Your task to perform on an android device: open sync settings in chrome Image 0: 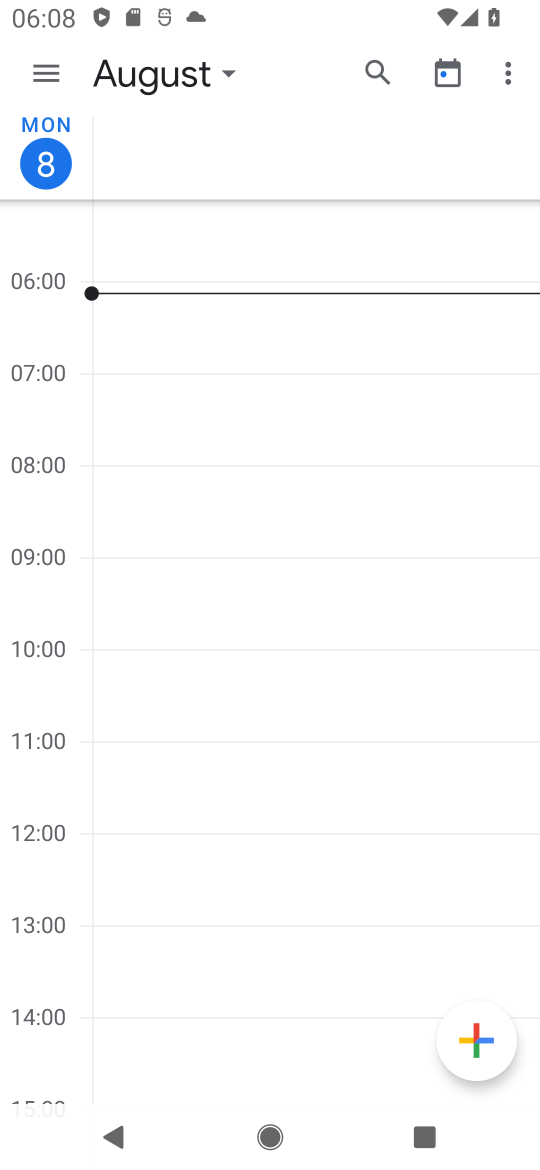
Step 0: press home button
Your task to perform on an android device: open sync settings in chrome Image 1: 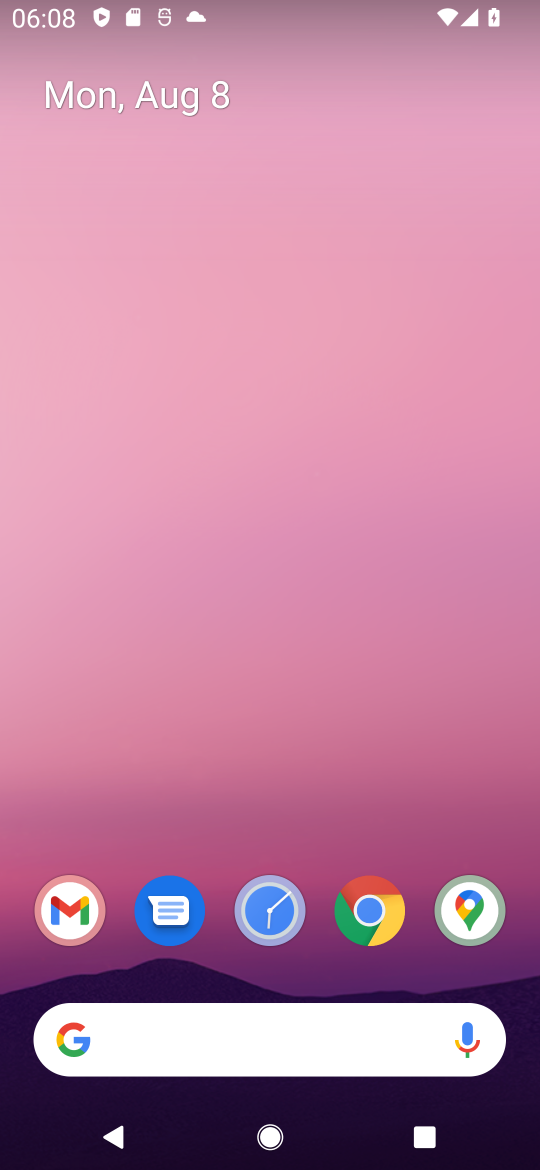
Step 1: click (367, 912)
Your task to perform on an android device: open sync settings in chrome Image 2: 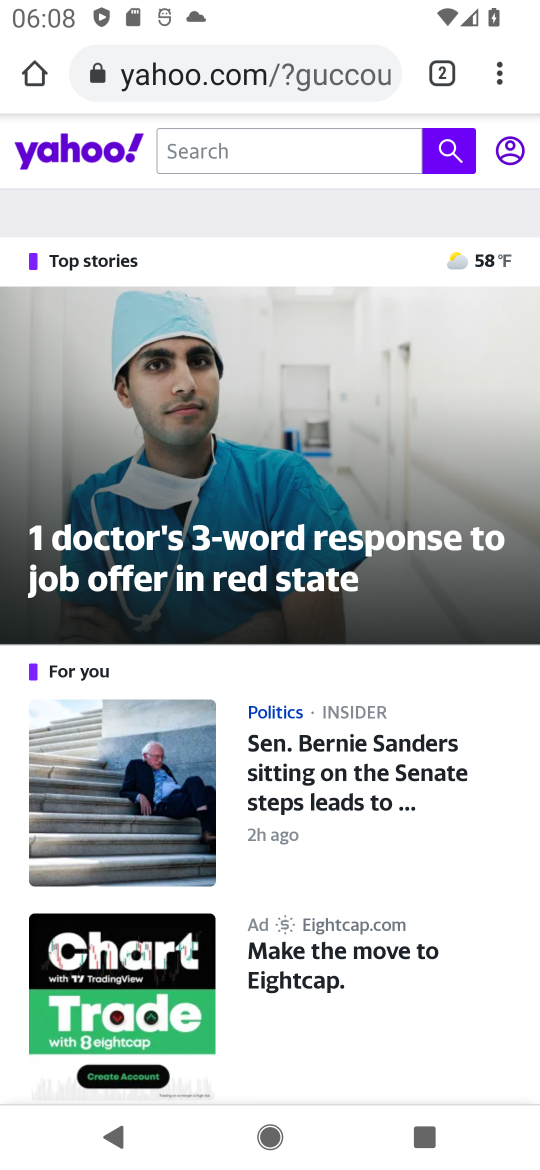
Step 2: click (498, 75)
Your task to perform on an android device: open sync settings in chrome Image 3: 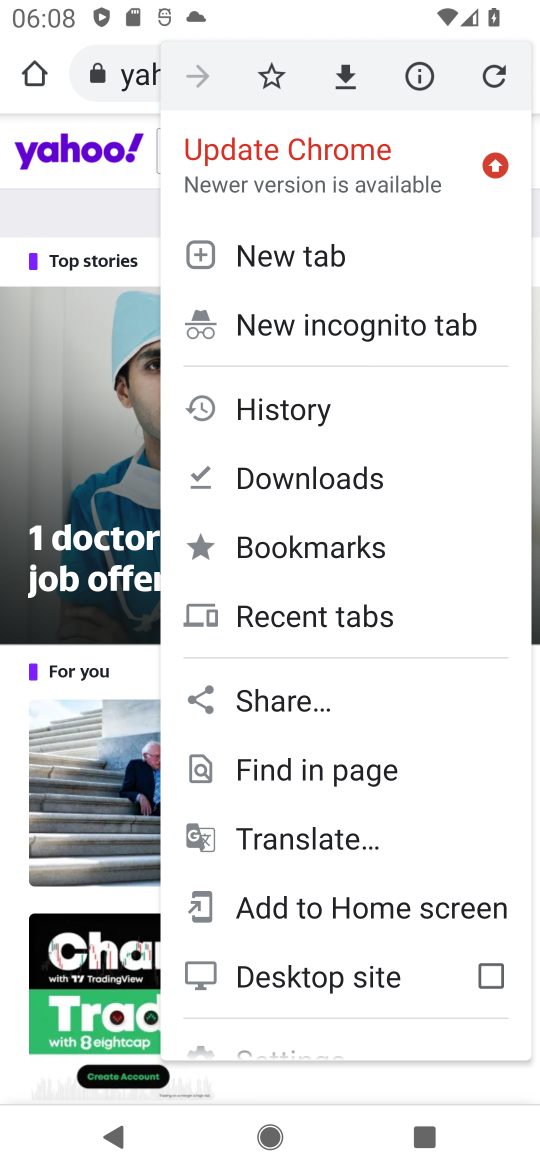
Step 3: drag from (284, 746) to (365, 597)
Your task to perform on an android device: open sync settings in chrome Image 4: 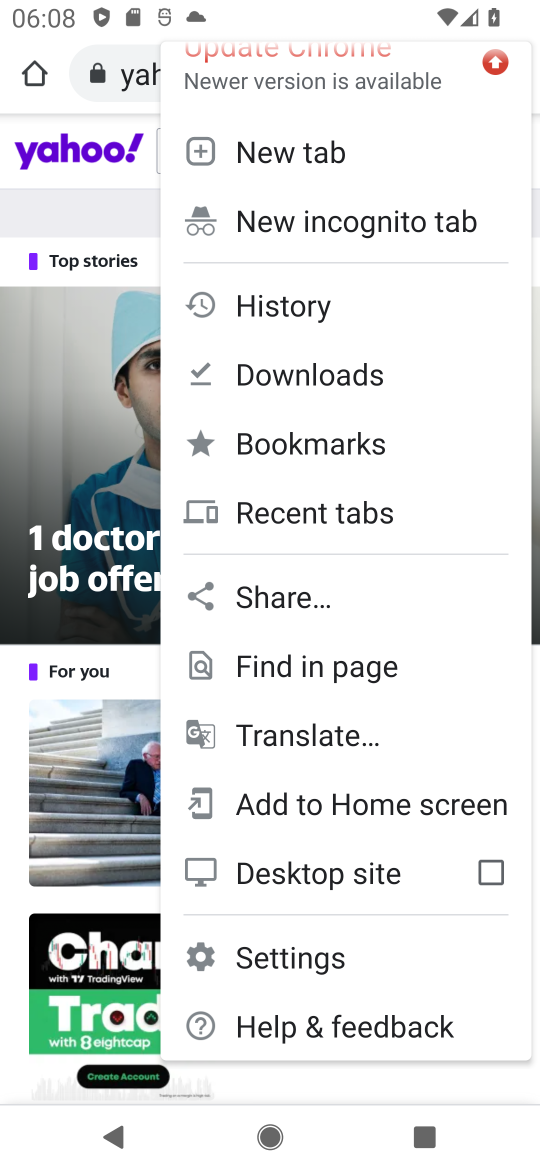
Step 4: click (315, 953)
Your task to perform on an android device: open sync settings in chrome Image 5: 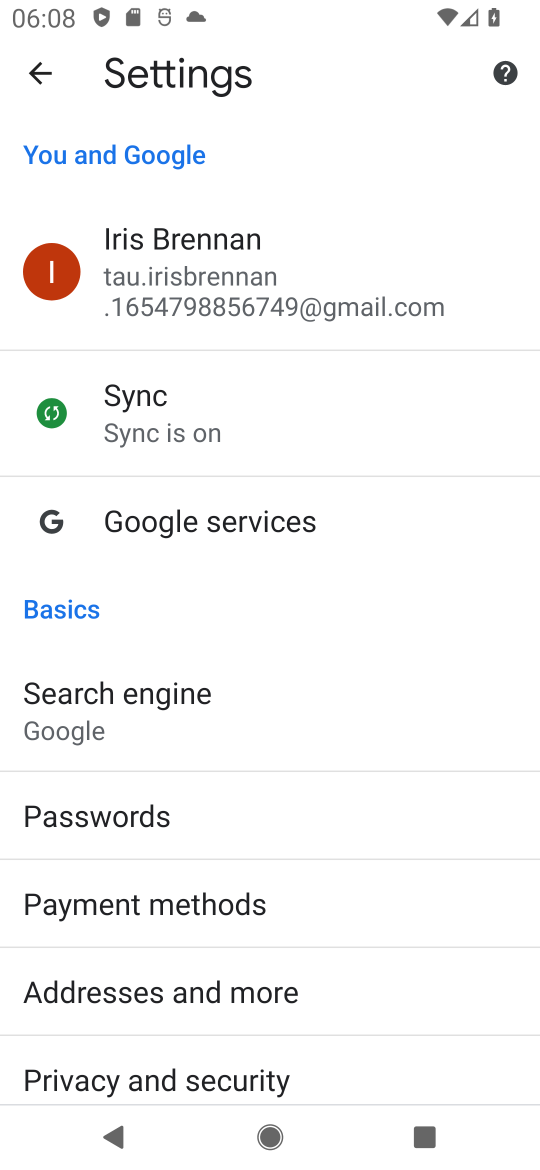
Step 5: click (168, 432)
Your task to perform on an android device: open sync settings in chrome Image 6: 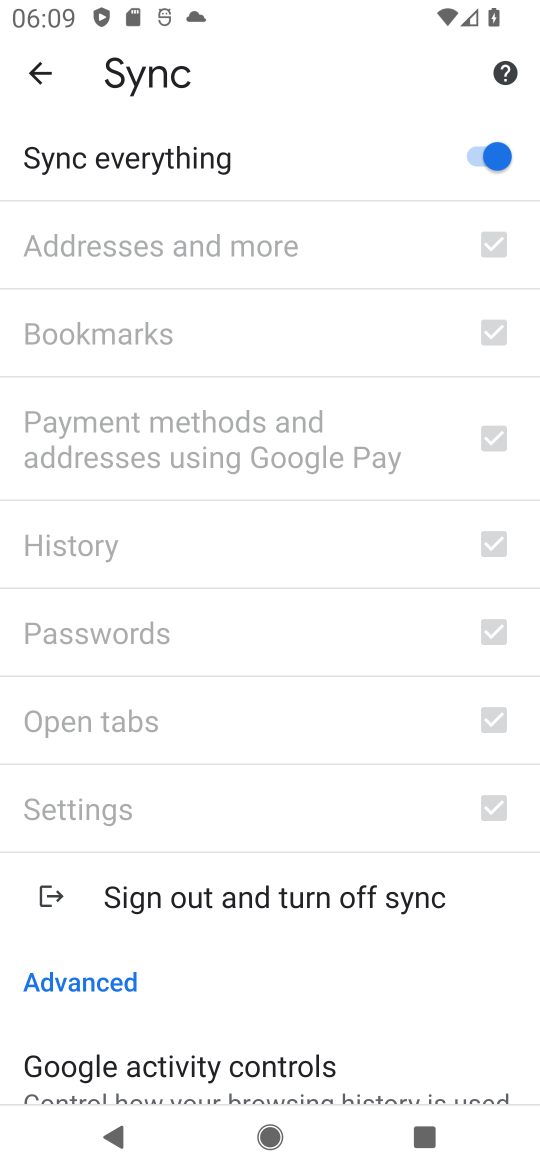
Step 6: task complete